Your task to perform on an android device: delete browsing data in the chrome app Image 0: 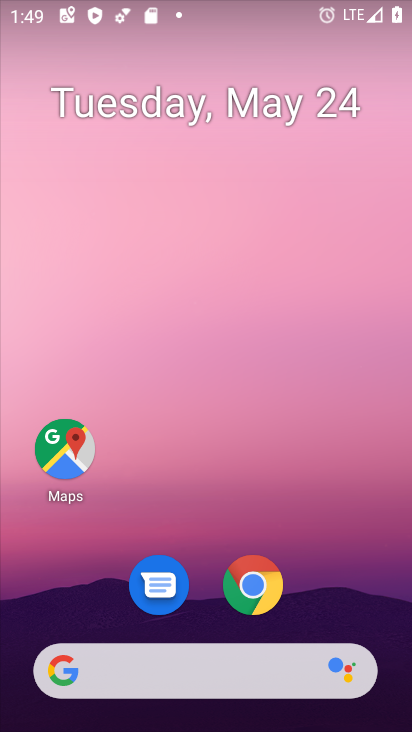
Step 0: click (254, 589)
Your task to perform on an android device: delete browsing data in the chrome app Image 1: 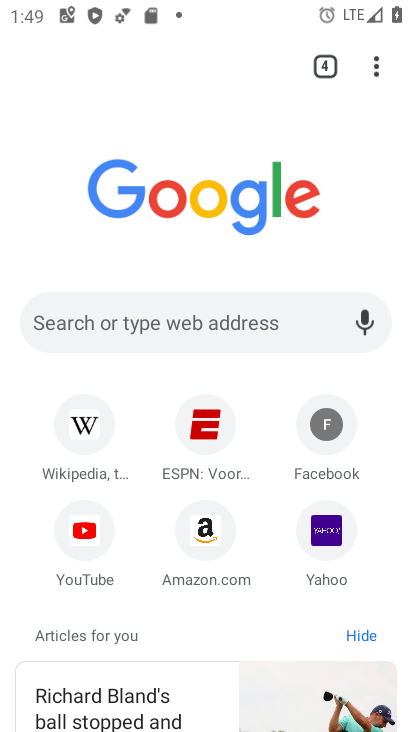
Step 1: click (376, 59)
Your task to perform on an android device: delete browsing data in the chrome app Image 2: 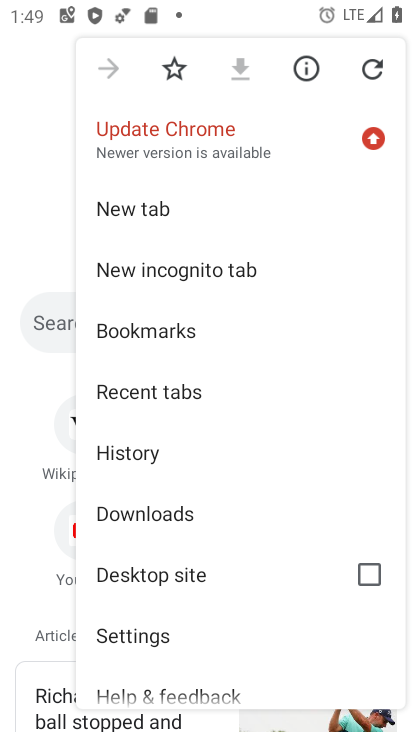
Step 2: click (136, 458)
Your task to perform on an android device: delete browsing data in the chrome app Image 3: 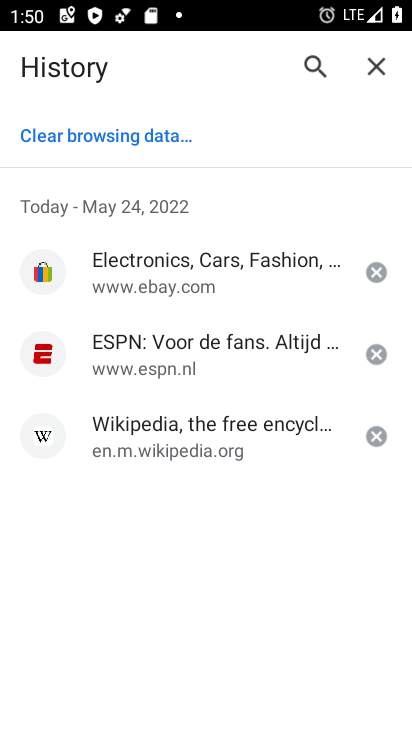
Step 3: click (141, 127)
Your task to perform on an android device: delete browsing data in the chrome app Image 4: 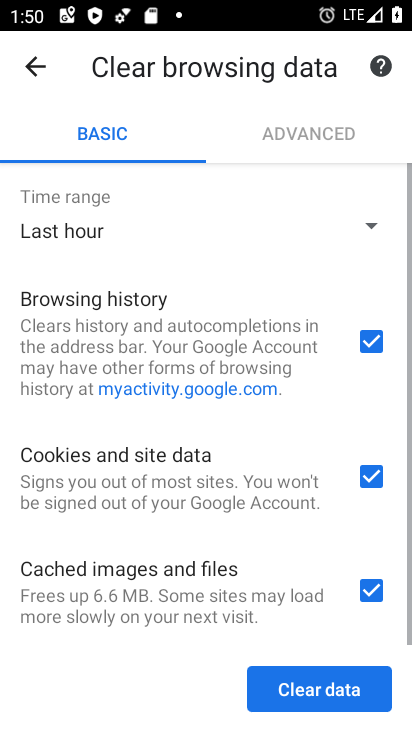
Step 4: click (306, 694)
Your task to perform on an android device: delete browsing data in the chrome app Image 5: 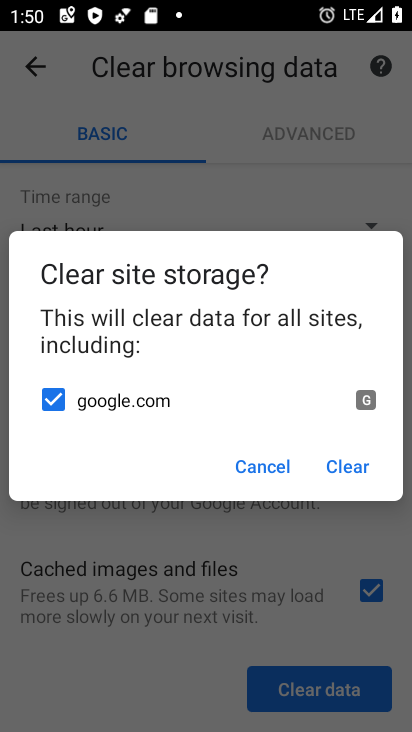
Step 5: click (344, 466)
Your task to perform on an android device: delete browsing data in the chrome app Image 6: 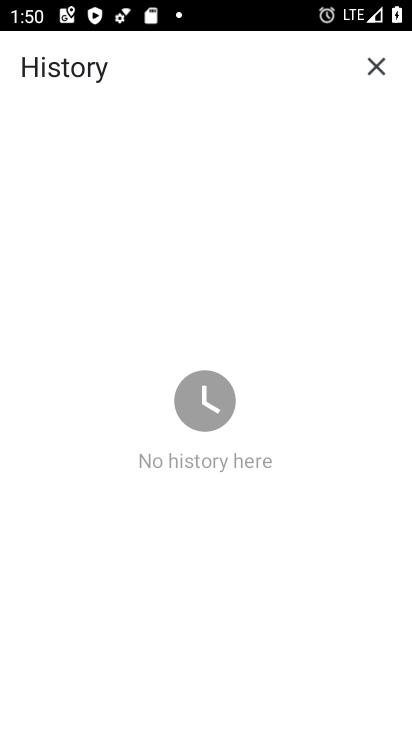
Step 6: task complete